Your task to perform on an android device: Go to accessibility settings Image 0: 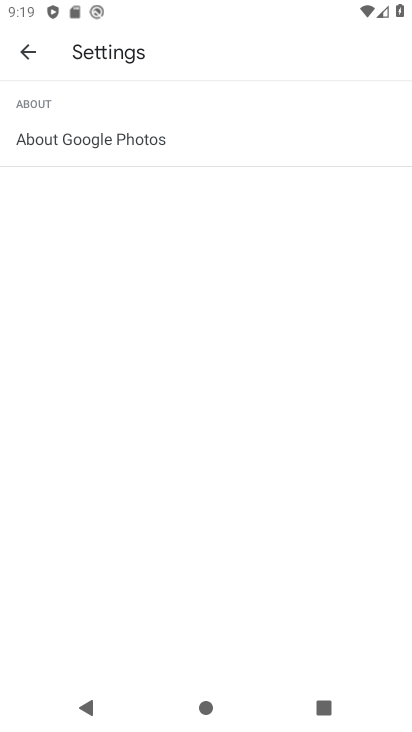
Step 0: press back button
Your task to perform on an android device: Go to accessibility settings Image 1: 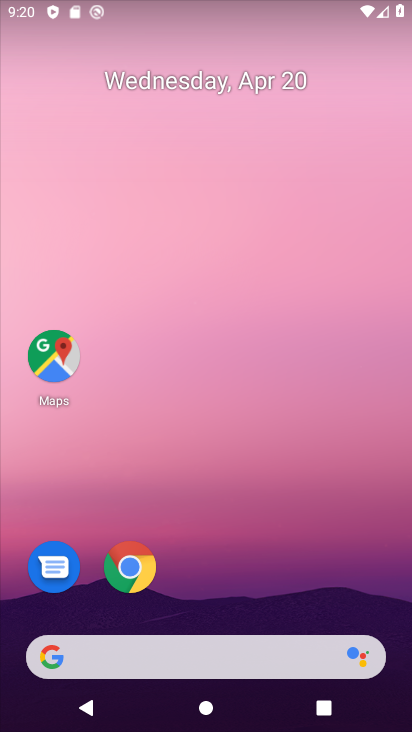
Step 1: drag from (260, 496) to (322, 84)
Your task to perform on an android device: Go to accessibility settings Image 2: 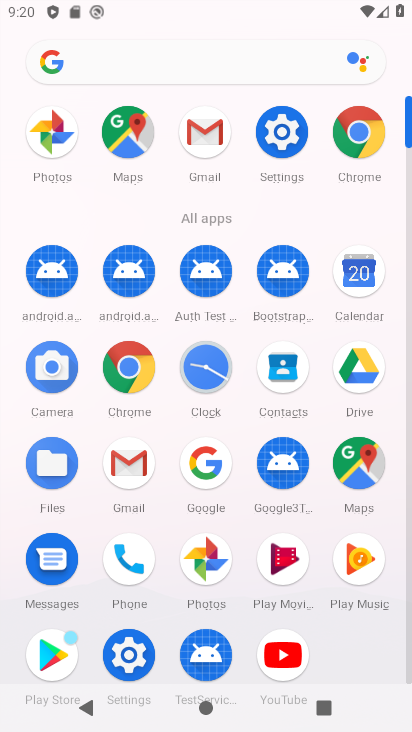
Step 2: click (285, 138)
Your task to perform on an android device: Go to accessibility settings Image 3: 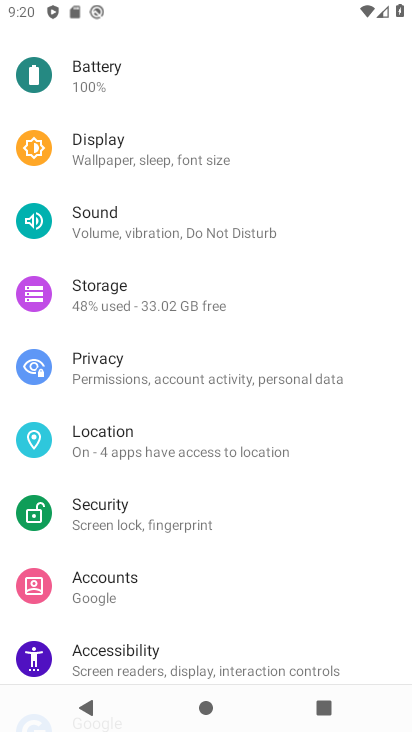
Step 3: click (144, 651)
Your task to perform on an android device: Go to accessibility settings Image 4: 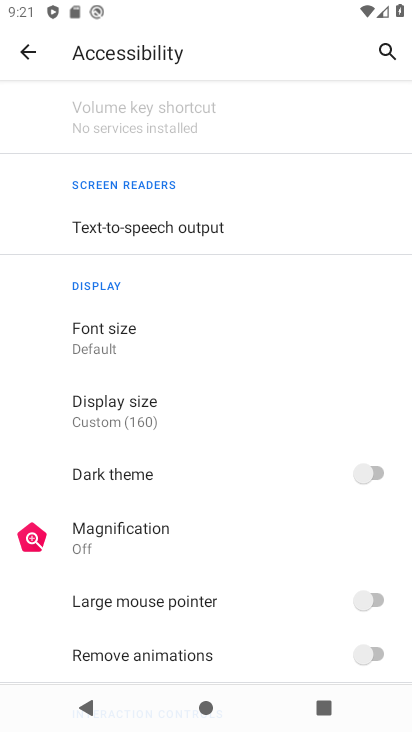
Step 4: task complete